Your task to perform on an android device: Open Google Chrome and click the shortcut for Amazon.com Image 0: 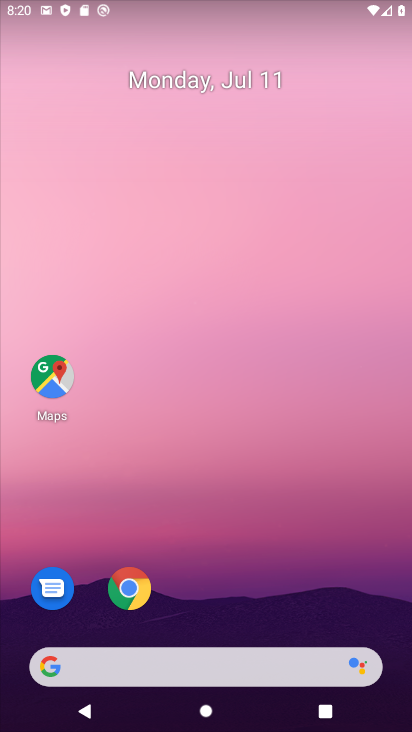
Step 0: click (127, 592)
Your task to perform on an android device: Open Google Chrome and click the shortcut for Amazon.com Image 1: 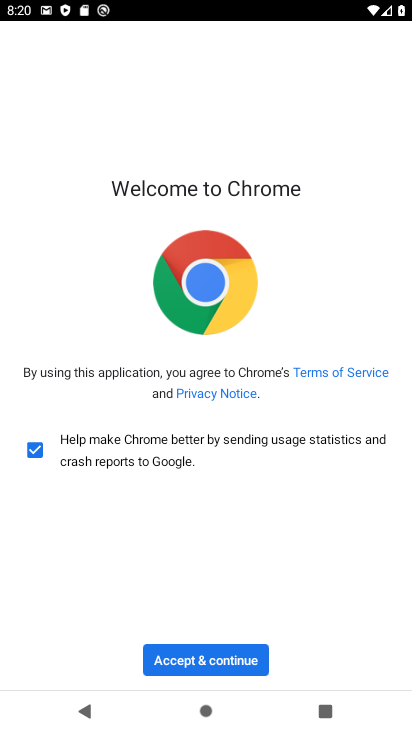
Step 1: click (208, 657)
Your task to perform on an android device: Open Google Chrome and click the shortcut for Amazon.com Image 2: 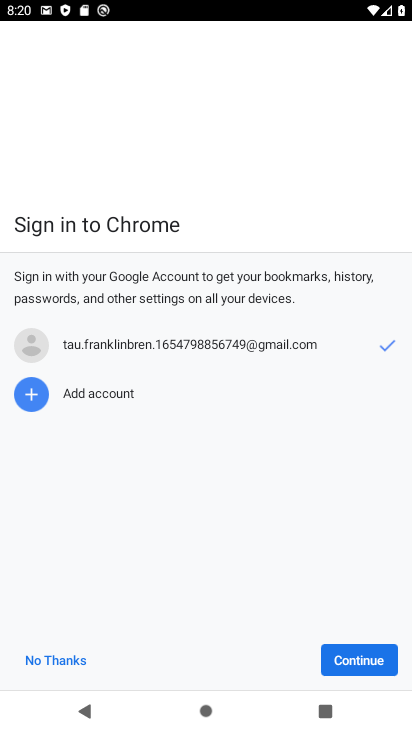
Step 2: click (345, 647)
Your task to perform on an android device: Open Google Chrome and click the shortcut for Amazon.com Image 3: 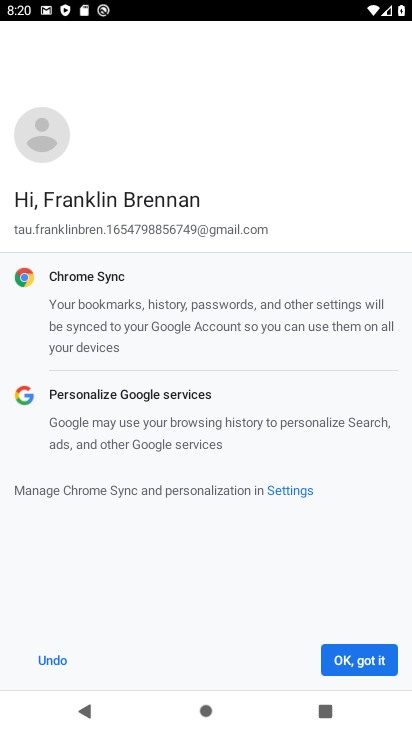
Step 3: click (350, 657)
Your task to perform on an android device: Open Google Chrome and click the shortcut for Amazon.com Image 4: 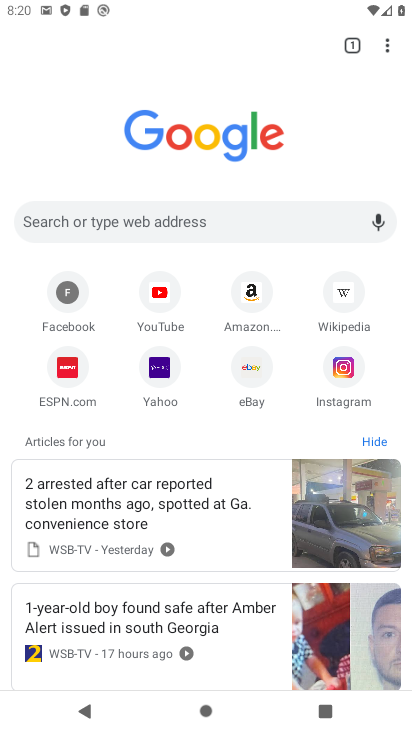
Step 4: click (249, 292)
Your task to perform on an android device: Open Google Chrome and click the shortcut for Amazon.com Image 5: 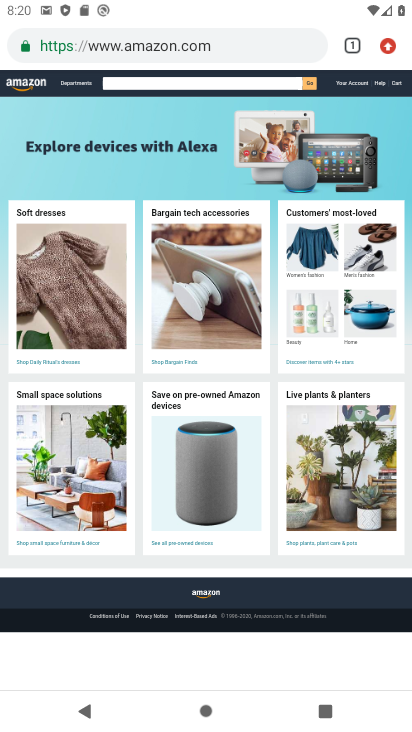
Step 5: task complete